Your task to perform on an android device: Go to Google maps Image 0: 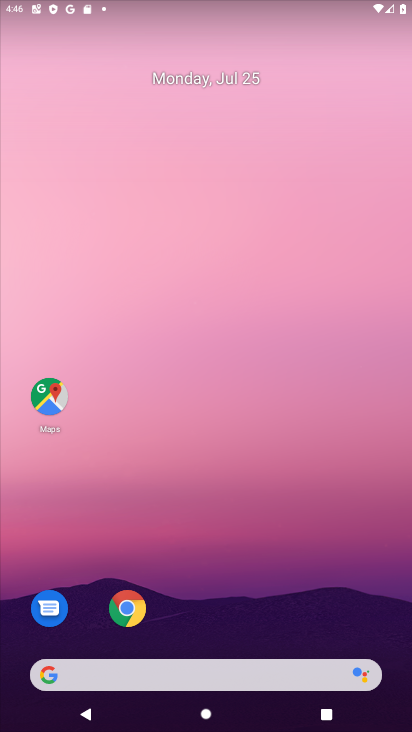
Step 0: click (49, 377)
Your task to perform on an android device: Go to Google maps Image 1: 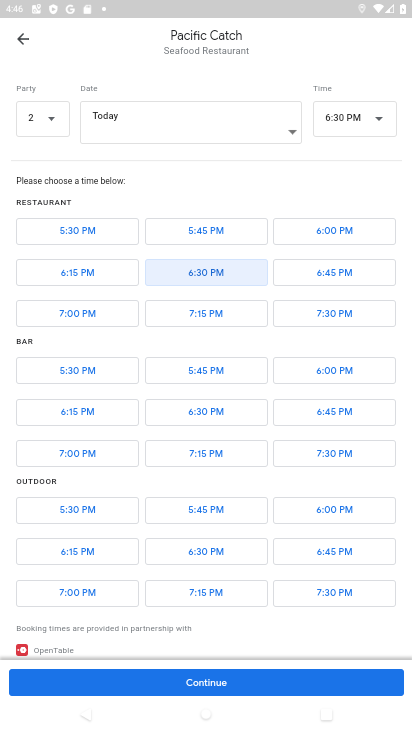
Step 1: click (20, 34)
Your task to perform on an android device: Go to Google maps Image 2: 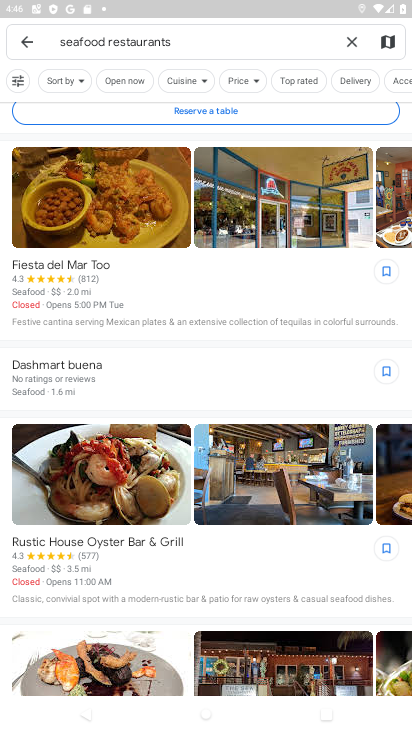
Step 2: click (18, 46)
Your task to perform on an android device: Go to Google maps Image 3: 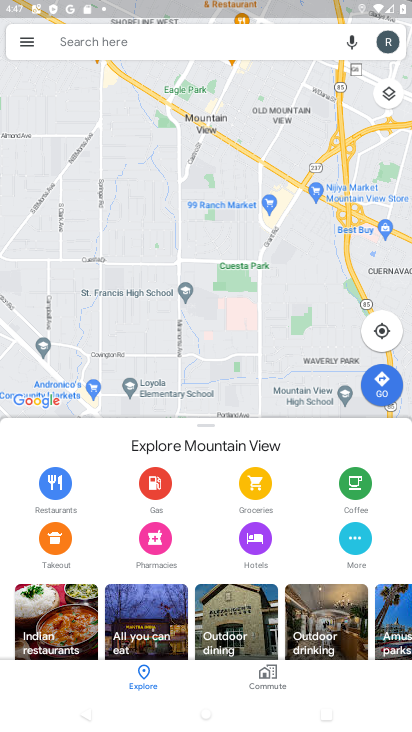
Step 3: task complete